Your task to perform on an android device: Go to ESPN.com Image 0: 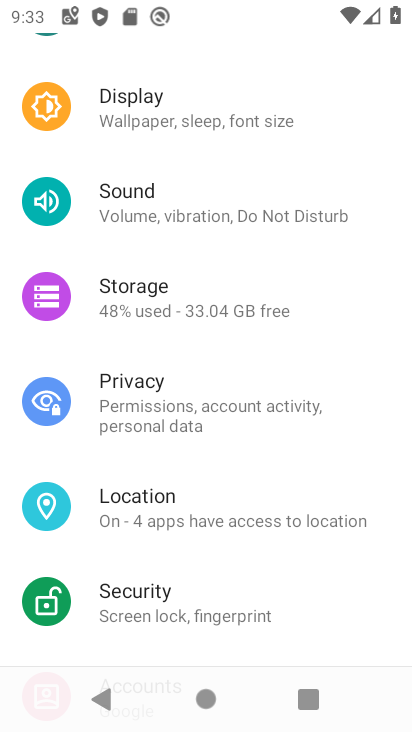
Step 0: press home button
Your task to perform on an android device: Go to ESPN.com Image 1: 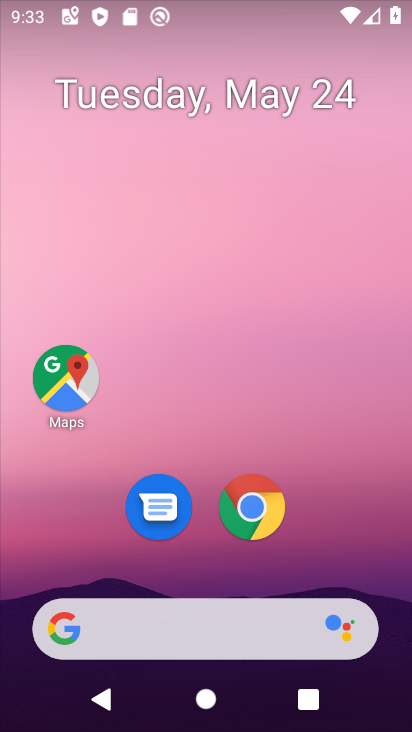
Step 1: click (262, 519)
Your task to perform on an android device: Go to ESPN.com Image 2: 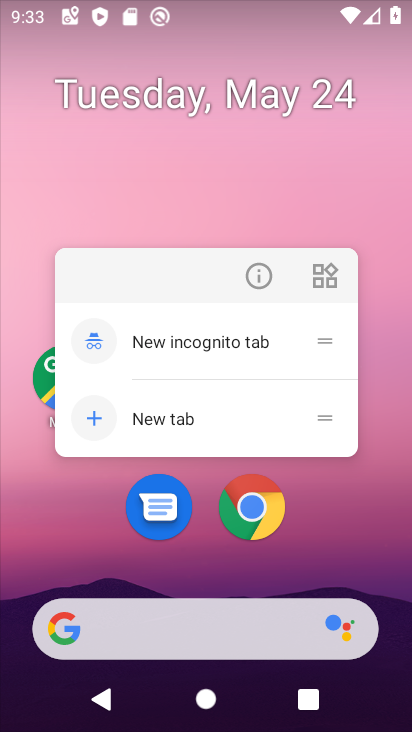
Step 2: click (262, 516)
Your task to perform on an android device: Go to ESPN.com Image 3: 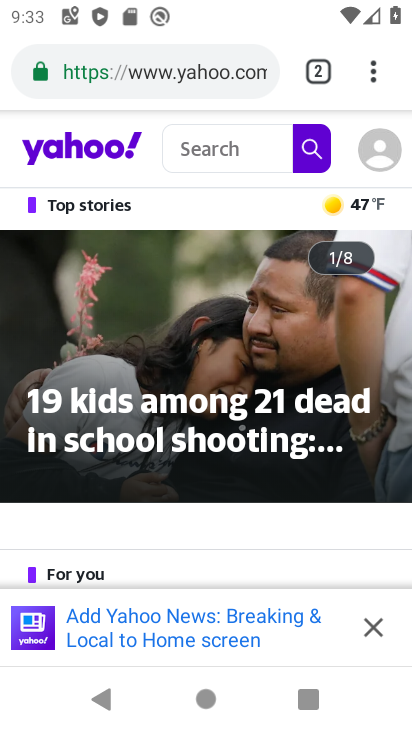
Step 3: drag from (367, 58) to (244, 155)
Your task to perform on an android device: Go to ESPN.com Image 4: 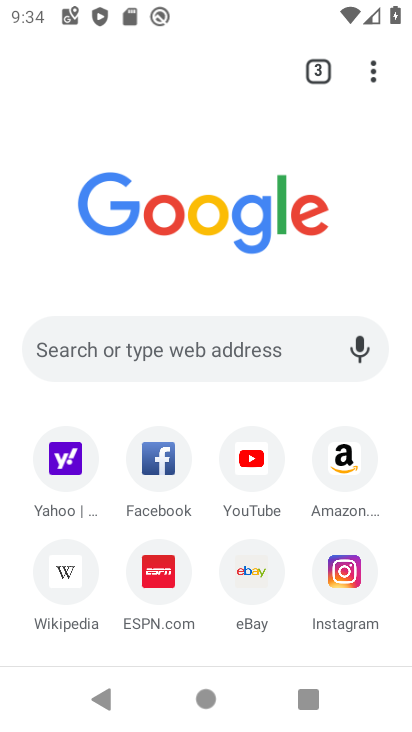
Step 4: click (161, 579)
Your task to perform on an android device: Go to ESPN.com Image 5: 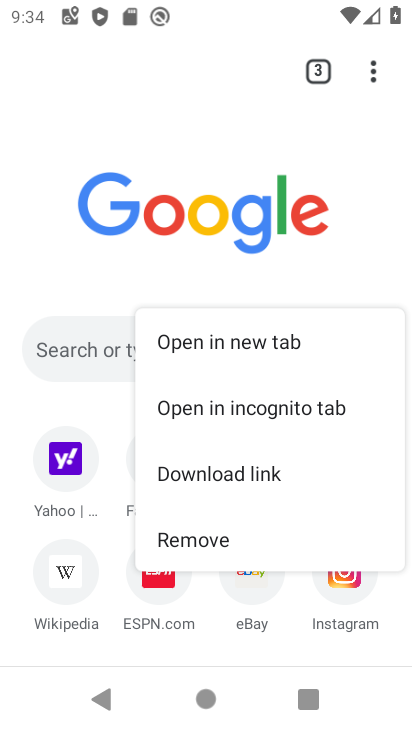
Step 5: click (148, 587)
Your task to perform on an android device: Go to ESPN.com Image 6: 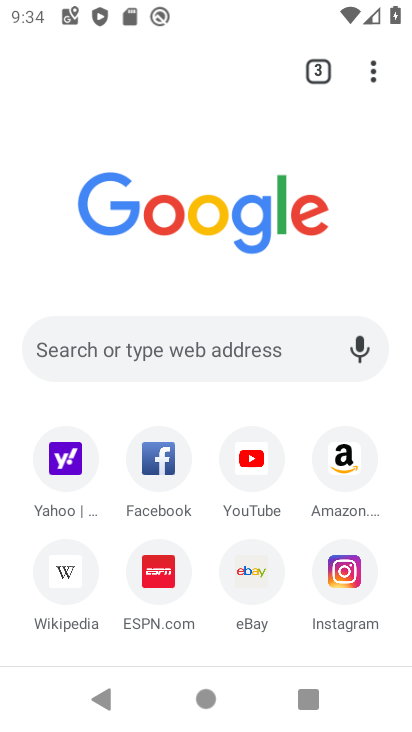
Step 6: click (158, 570)
Your task to perform on an android device: Go to ESPN.com Image 7: 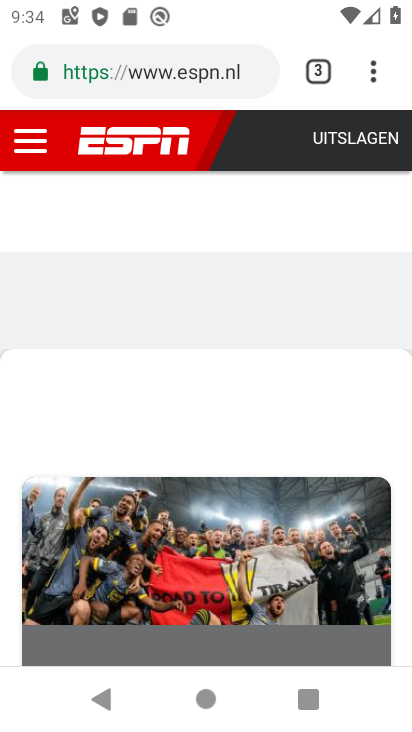
Step 7: task complete